Your task to perform on an android device: Go to Yahoo.com Image 0: 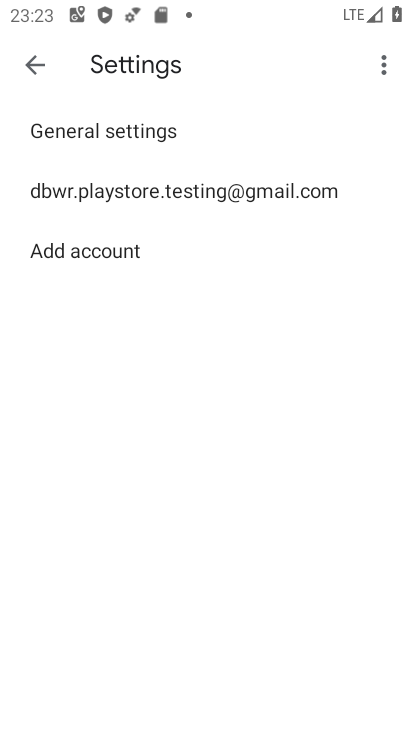
Step 0: click (40, 55)
Your task to perform on an android device: Go to Yahoo.com Image 1: 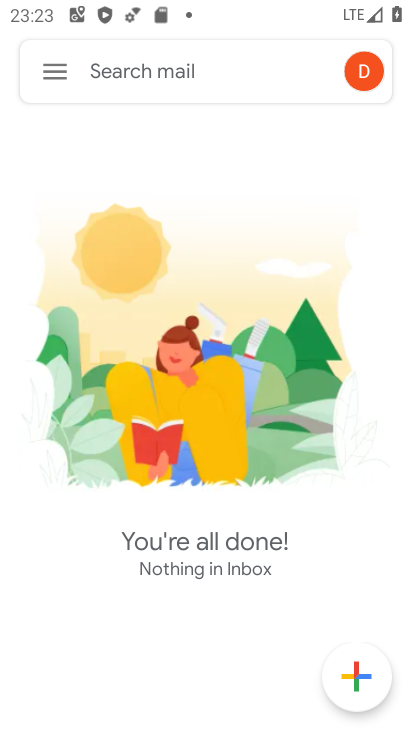
Step 1: press back button
Your task to perform on an android device: Go to Yahoo.com Image 2: 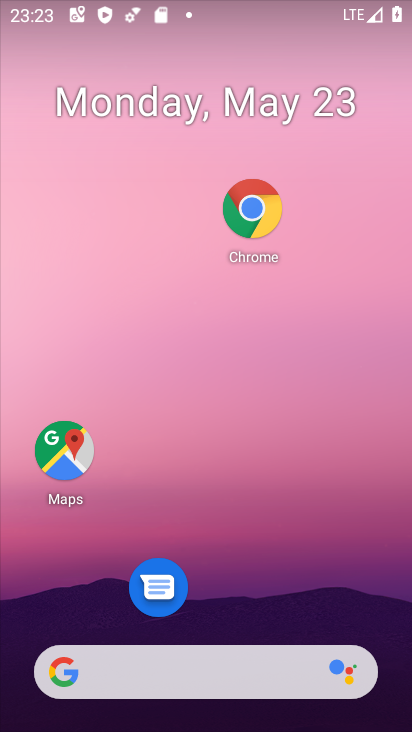
Step 2: drag from (272, 716) to (211, 77)
Your task to perform on an android device: Go to Yahoo.com Image 3: 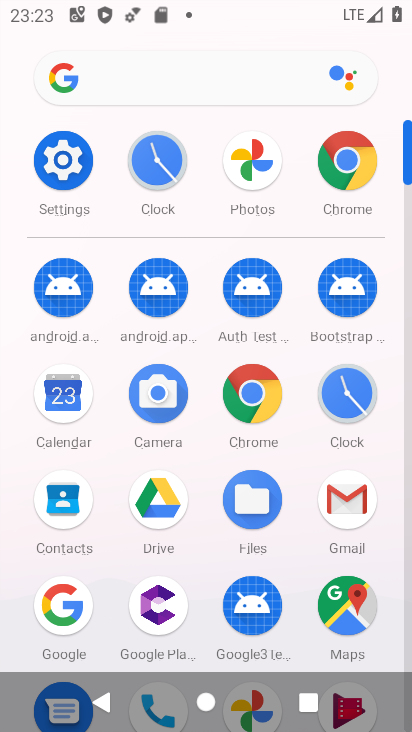
Step 3: click (68, 161)
Your task to perform on an android device: Go to Yahoo.com Image 4: 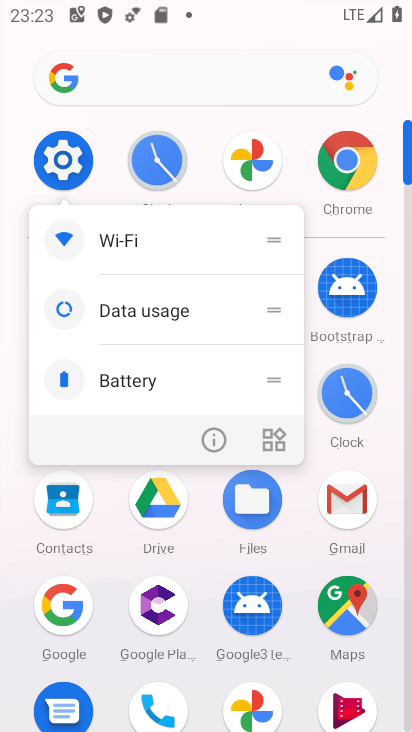
Step 4: press home button
Your task to perform on an android device: Go to Yahoo.com Image 5: 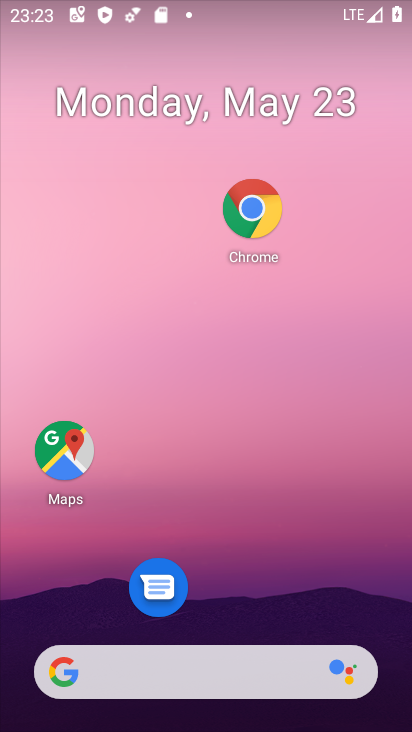
Step 5: drag from (322, 701) to (234, 16)
Your task to perform on an android device: Go to Yahoo.com Image 6: 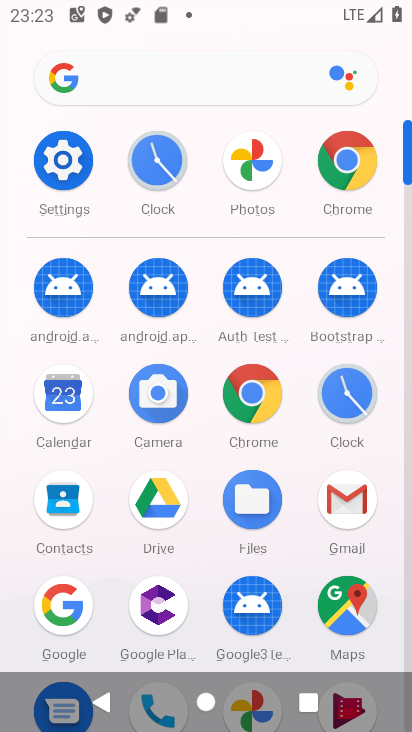
Step 6: click (347, 166)
Your task to perform on an android device: Go to Yahoo.com Image 7: 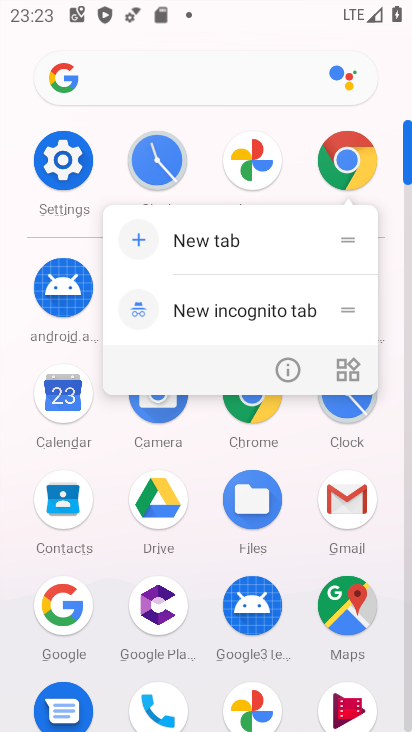
Step 7: click (340, 173)
Your task to perform on an android device: Go to Yahoo.com Image 8: 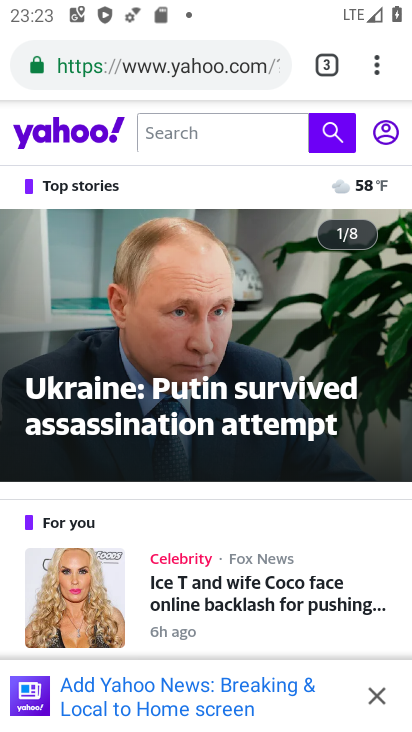
Step 8: task complete